Your task to perform on an android device: Go to location settings Image 0: 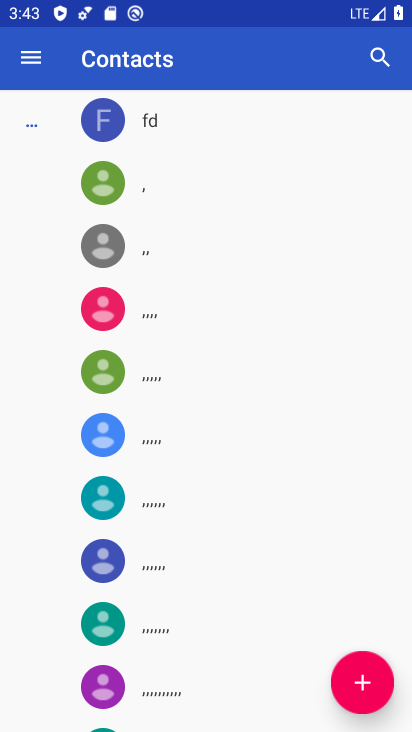
Step 0: press home button
Your task to perform on an android device: Go to location settings Image 1: 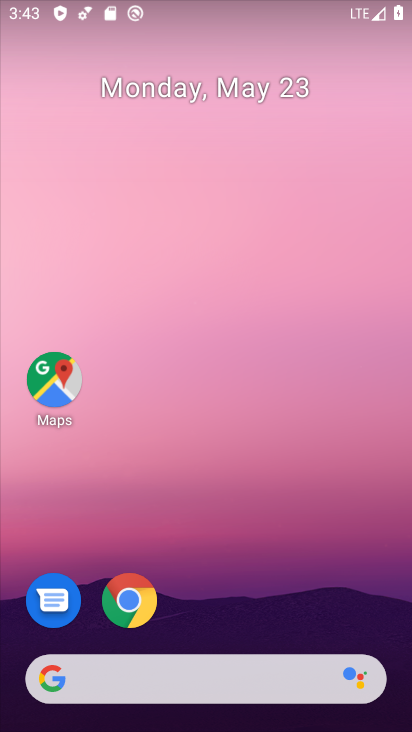
Step 1: drag from (256, 633) to (222, 2)
Your task to perform on an android device: Go to location settings Image 2: 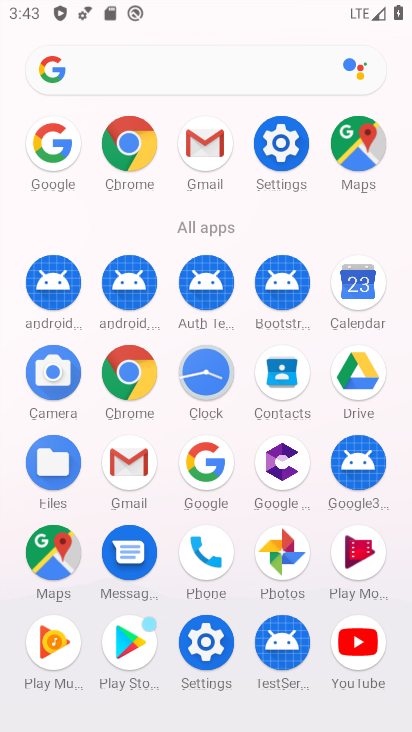
Step 2: click (288, 148)
Your task to perform on an android device: Go to location settings Image 3: 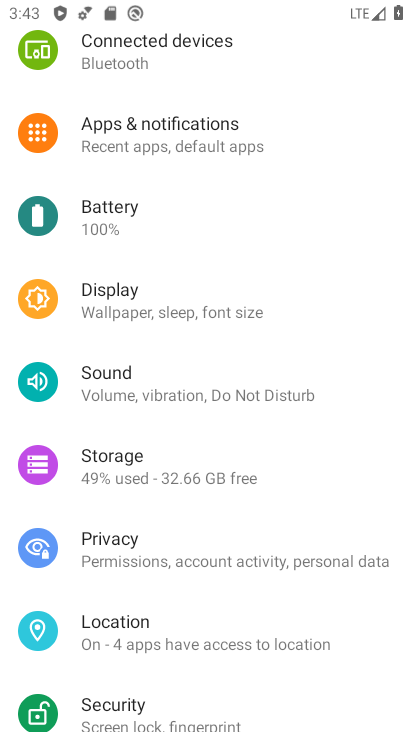
Step 3: click (123, 636)
Your task to perform on an android device: Go to location settings Image 4: 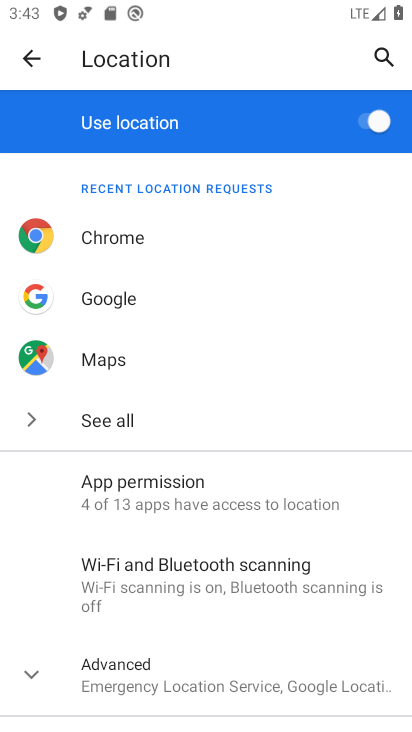
Step 4: task complete